Your task to perform on an android device: change notifications settings Image 0: 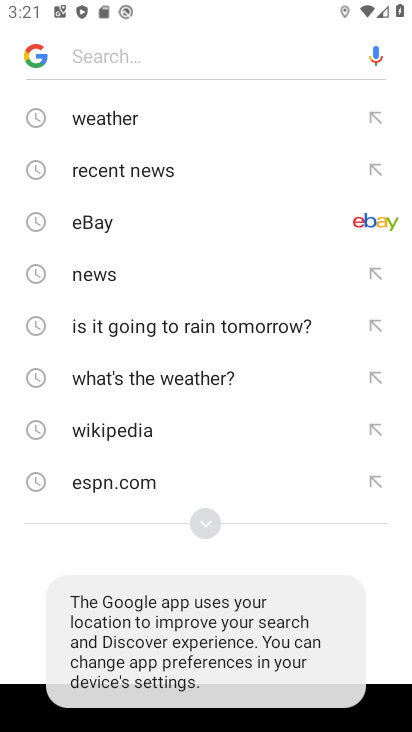
Step 0: press home button
Your task to perform on an android device: change notifications settings Image 1: 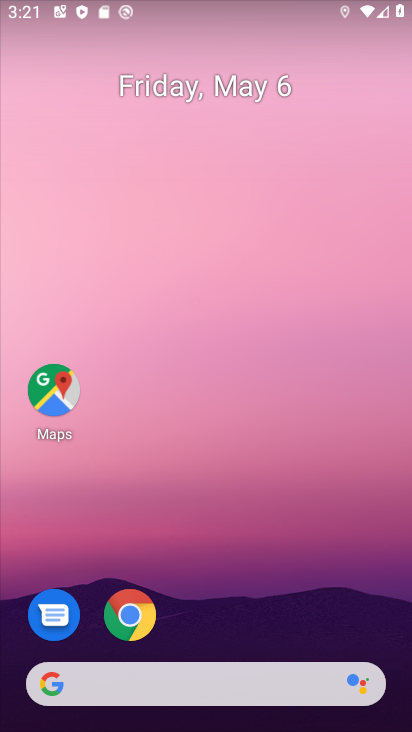
Step 1: drag from (278, 580) to (322, 172)
Your task to perform on an android device: change notifications settings Image 2: 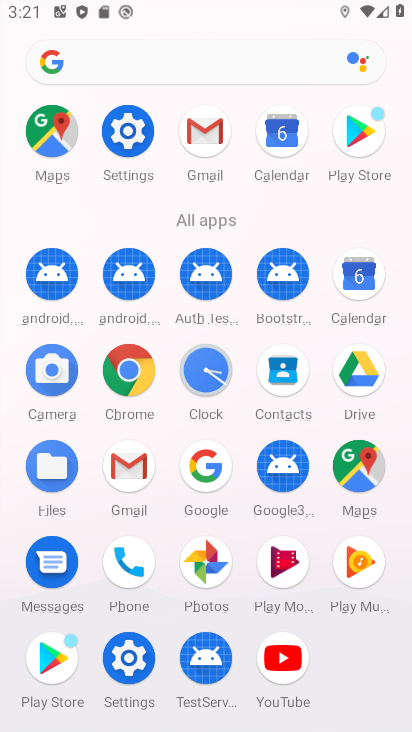
Step 2: click (124, 137)
Your task to perform on an android device: change notifications settings Image 3: 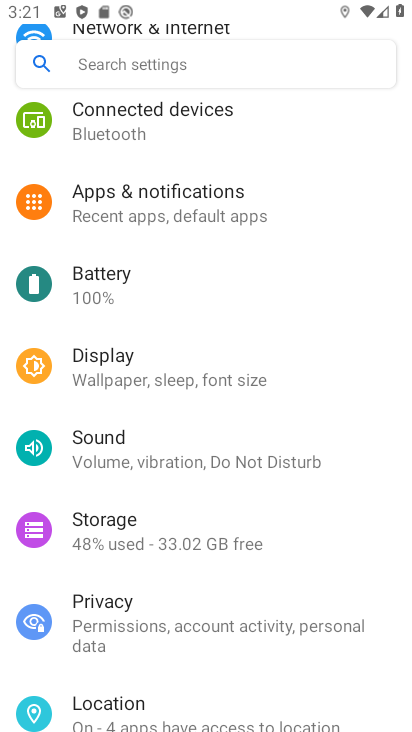
Step 3: drag from (309, 544) to (310, 670)
Your task to perform on an android device: change notifications settings Image 4: 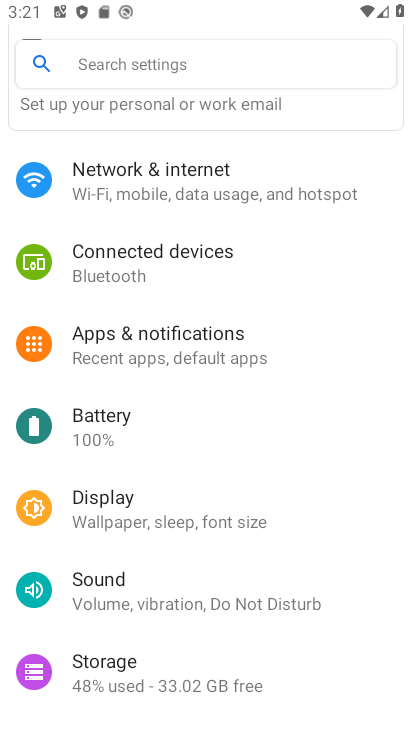
Step 4: click (183, 343)
Your task to perform on an android device: change notifications settings Image 5: 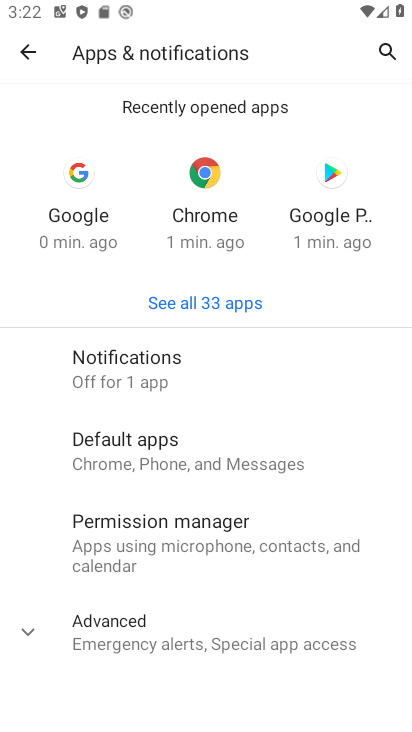
Step 5: click (149, 367)
Your task to perform on an android device: change notifications settings Image 6: 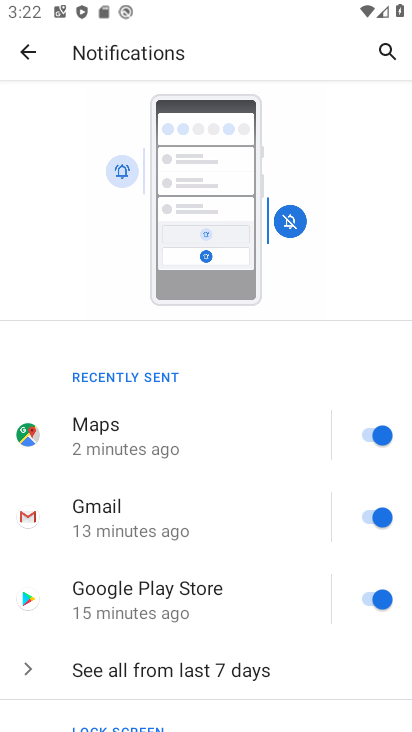
Step 6: click (369, 430)
Your task to perform on an android device: change notifications settings Image 7: 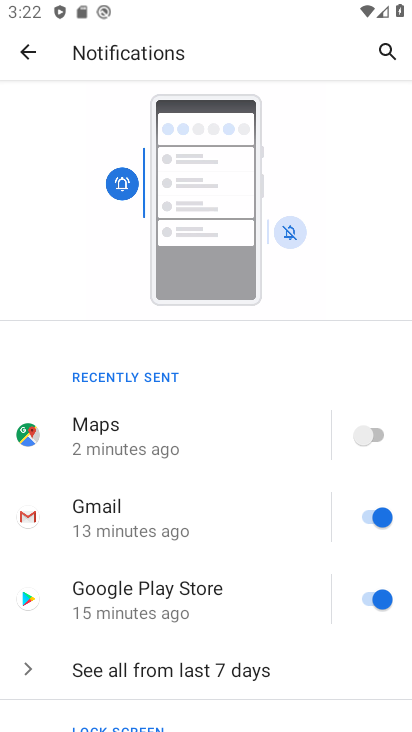
Step 7: task complete